Your task to perform on an android device: toggle location history Image 0: 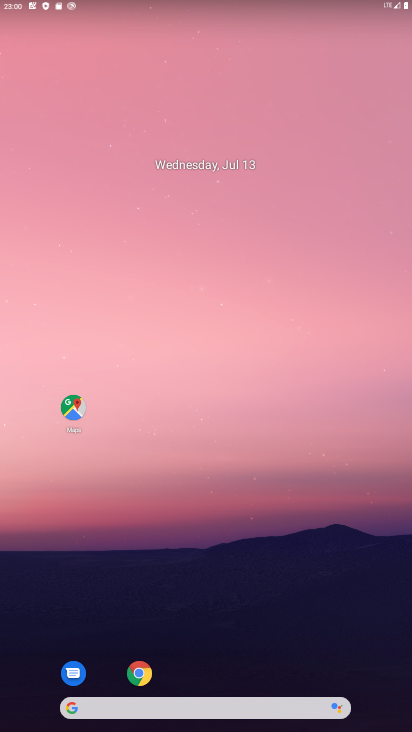
Step 0: drag from (192, 553) to (223, 221)
Your task to perform on an android device: toggle location history Image 1: 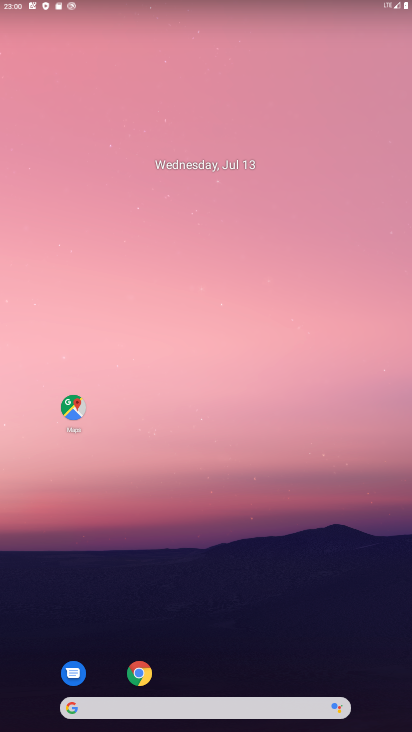
Step 1: drag from (195, 677) to (231, 199)
Your task to perform on an android device: toggle location history Image 2: 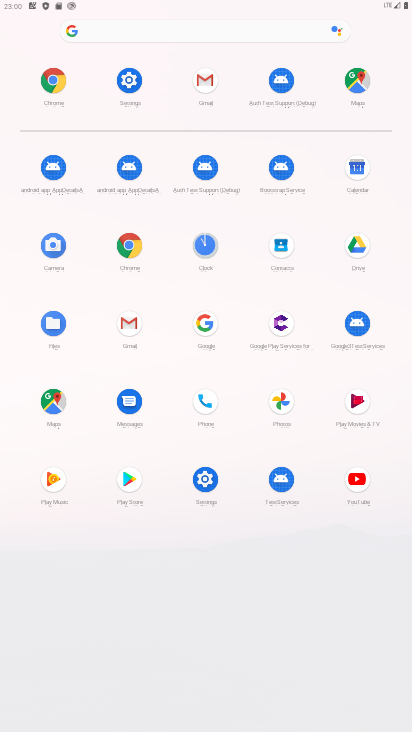
Step 2: click (200, 484)
Your task to perform on an android device: toggle location history Image 3: 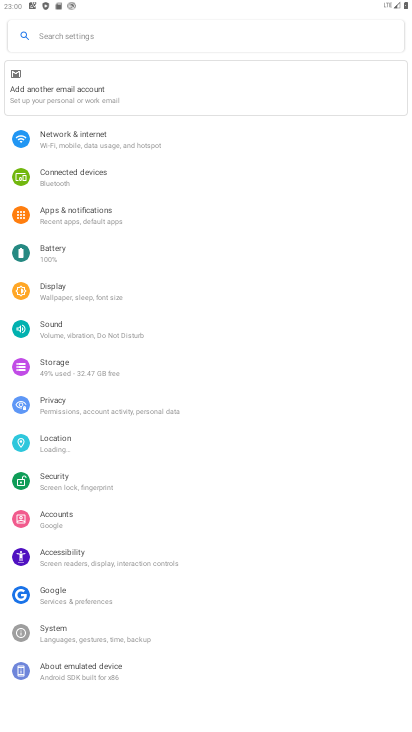
Step 3: drag from (184, 646) to (190, 366)
Your task to perform on an android device: toggle location history Image 4: 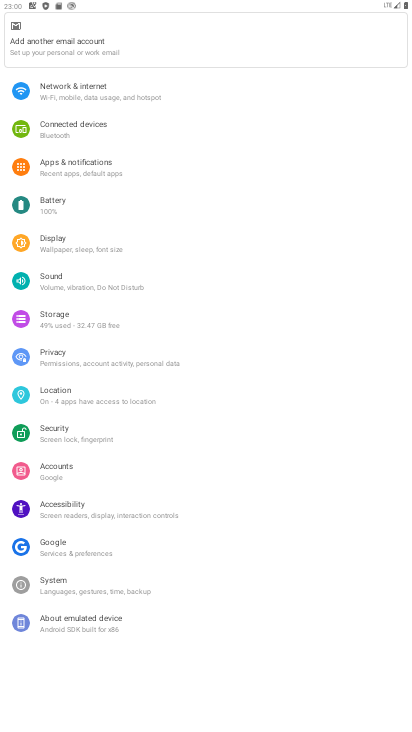
Step 4: drag from (165, 491) to (170, 332)
Your task to perform on an android device: toggle location history Image 5: 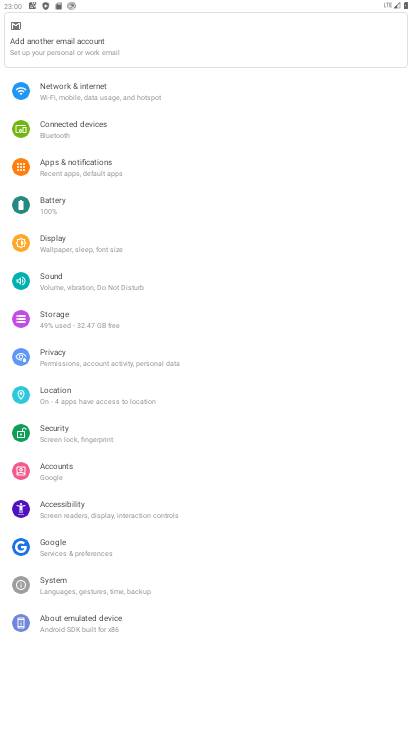
Step 5: click (86, 390)
Your task to perform on an android device: toggle location history Image 6: 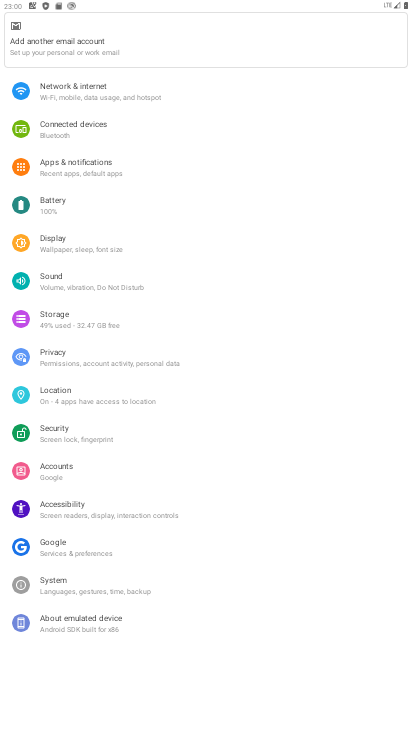
Step 6: click (86, 390)
Your task to perform on an android device: toggle location history Image 7: 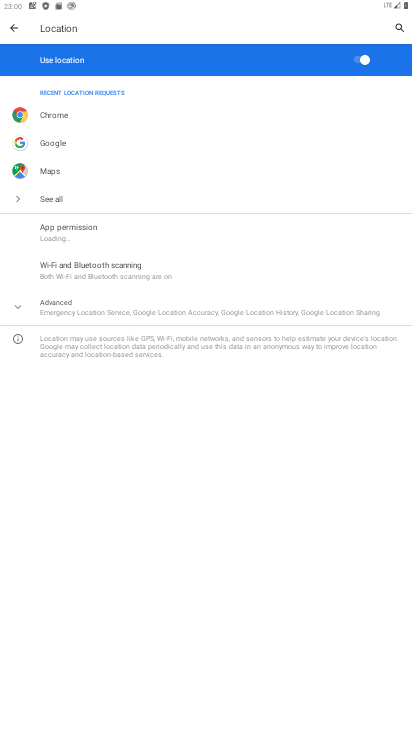
Step 7: drag from (205, 548) to (208, 326)
Your task to perform on an android device: toggle location history Image 8: 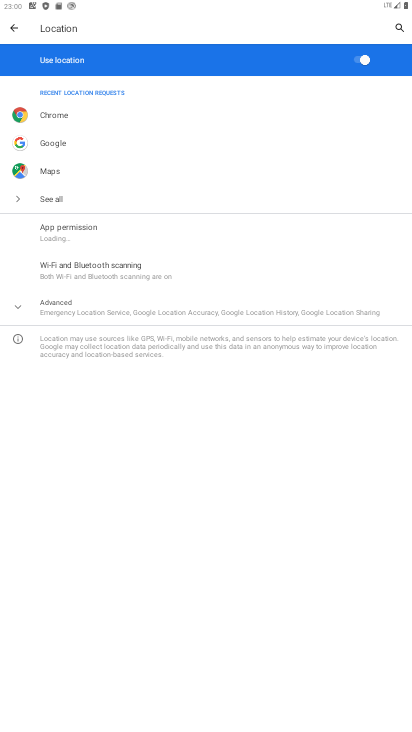
Step 8: click (70, 308)
Your task to perform on an android device: toggle location history Image 9: 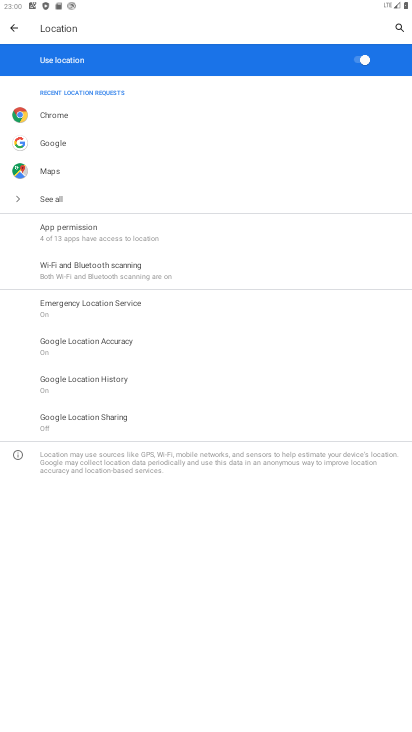
Step 9: click (106, 379)
Your task to perform on an android device: toggle location history Image 10: 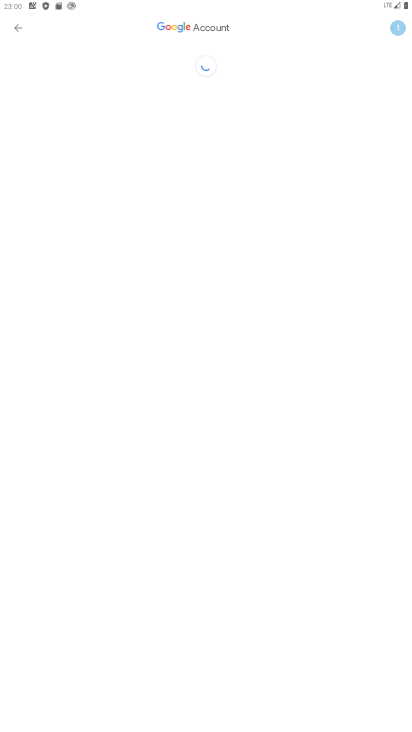
Step 10: task complete